Your task to perform on an android device: turn pop-ups on in chrome Image 0: 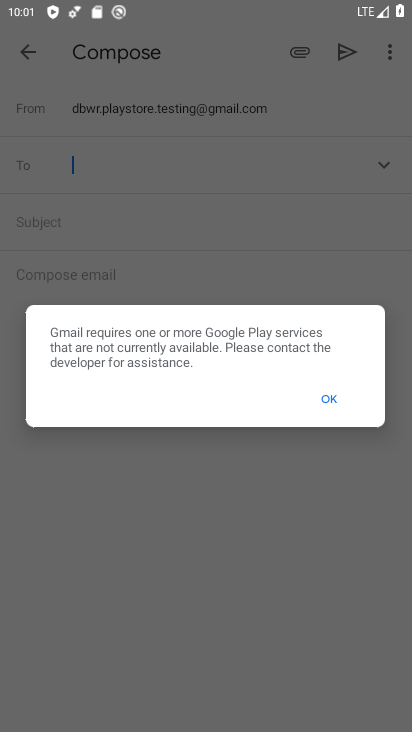
Step 0: press home button
Your task to perform on an android device: turn pop-ups on in chrome Image 1: 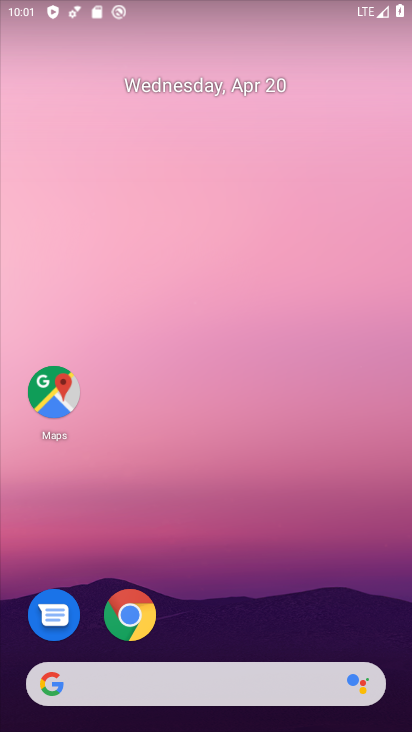
Step 1: drag from (343, 550) to (334, 156)
Your task to perform on an android device: turn pop-ups on in chrome Image 2: 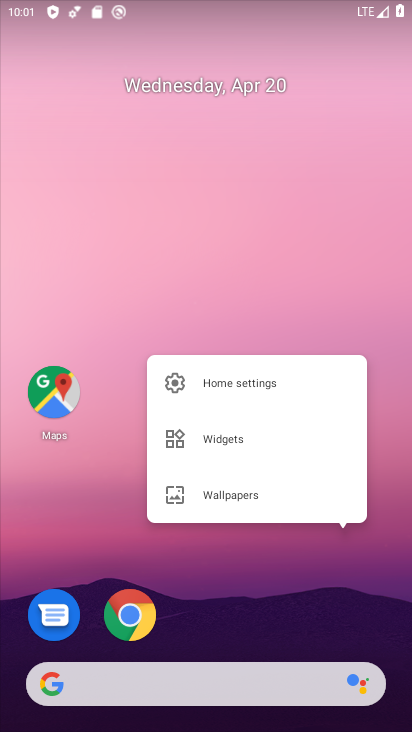
Step 2: click (104, 513)
Your task to perform on an android device: turn pop-ups on in chrome Image 3: 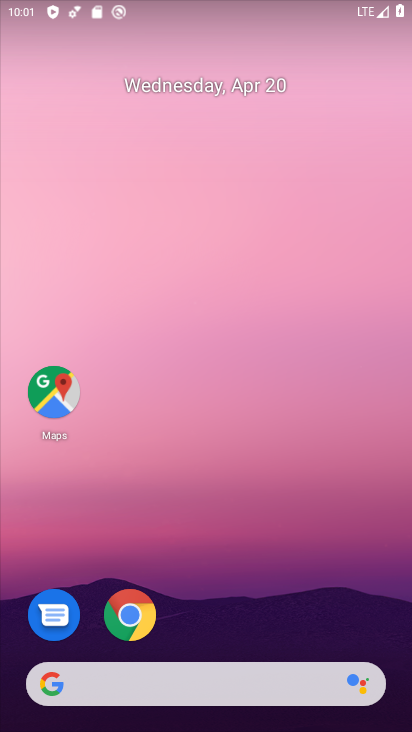
Step 3: click (135, 629)
Your task to perform on an android device: turn pop-ups on in chrome Image 4: 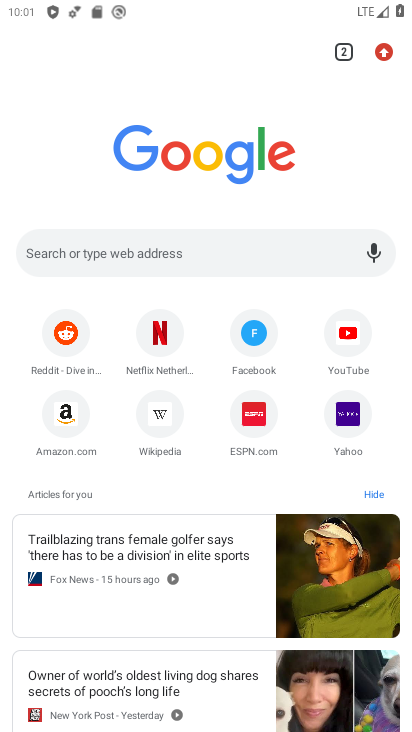
Step 4: click (388, 57)
Your task to perform on an android device: turn pop-ups on in chrome Image 5: 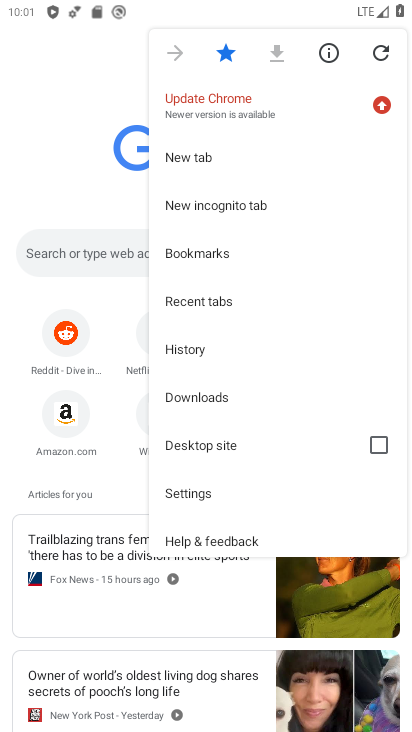
Step 5: click (224, 495)
Your task to perform on an android device: turn pop-ups on in chrome Image 6: 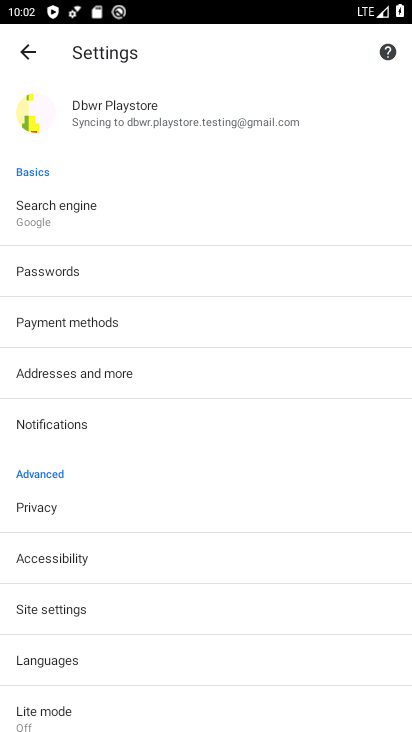
Step 6: click (222, 622)
Your task to perform on an android device: turn pop-ups on in chrome Image 7: 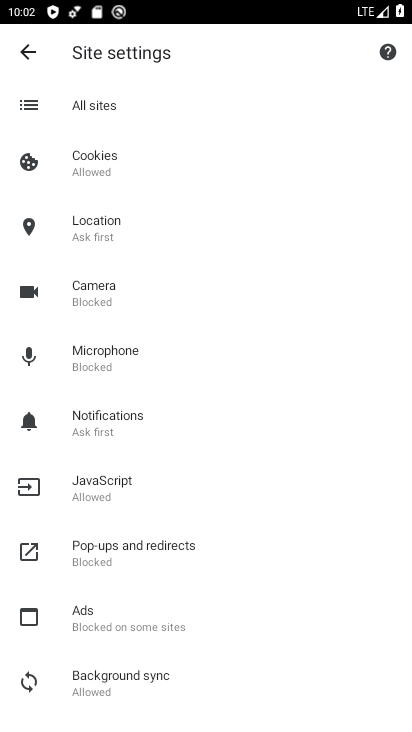
Step 7: click (232, 548)
Your task to perform on an android device: turn pop-ups on in chrome Image 8: 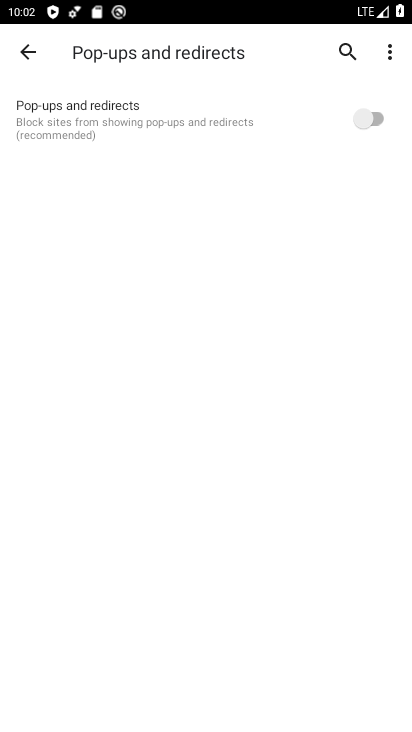
Step 8: click (371, 133)
Your task to perform on an android device: turn pop-ups on in chrome Image 9: 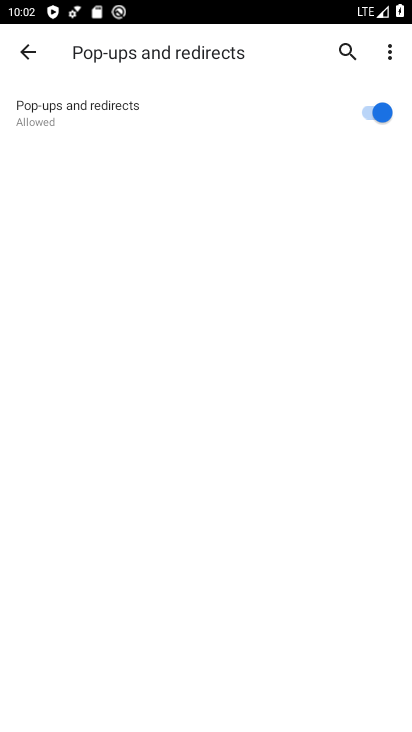
Step 9: task complete